Your task to perform on an android device: see sites visited before in the chrome app Image 0: 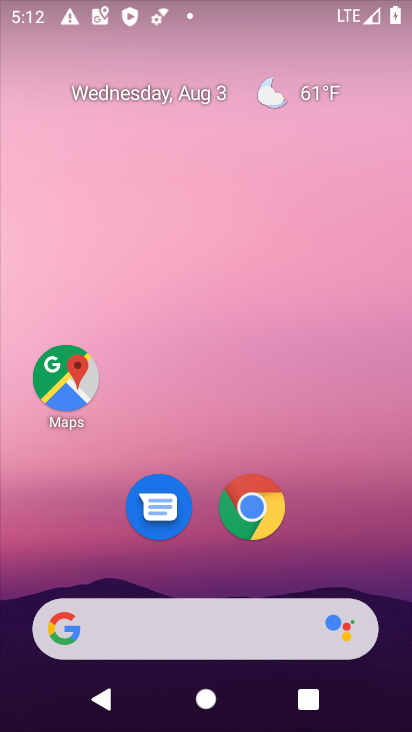
Step 0: click (403, 487)
Your task to perform on an android device: see sites visited before in the chrome app Image 1: 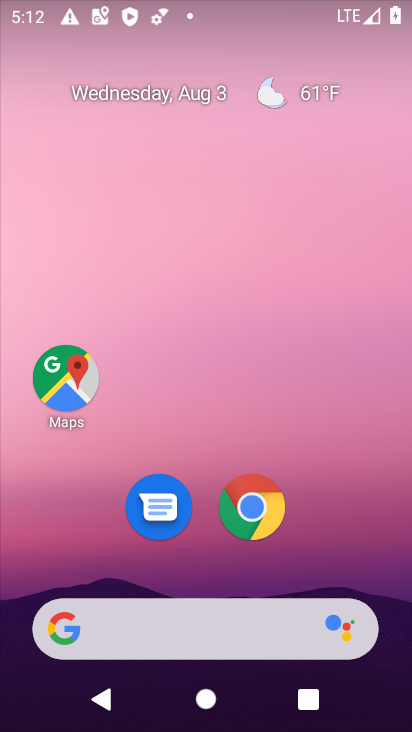
Step 1: drag from (384, 476) to (358, 0)
Your task to perform on an android device: see sites visited before in the chrome app Image 2: 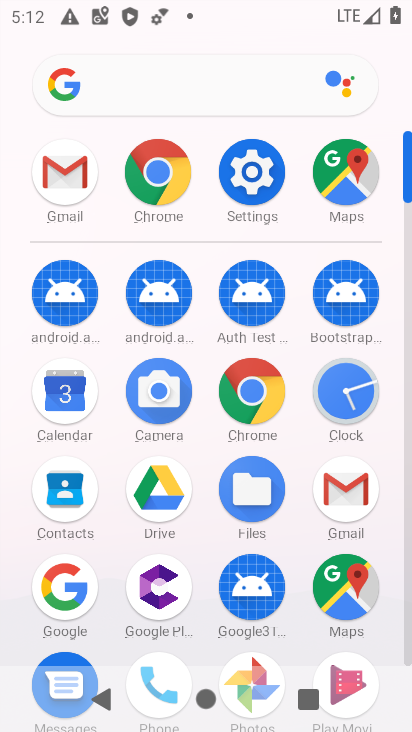
Step 2: click (244, 386)
Your task to perform on an android device: see sites visited before in the chrome app Image 3: 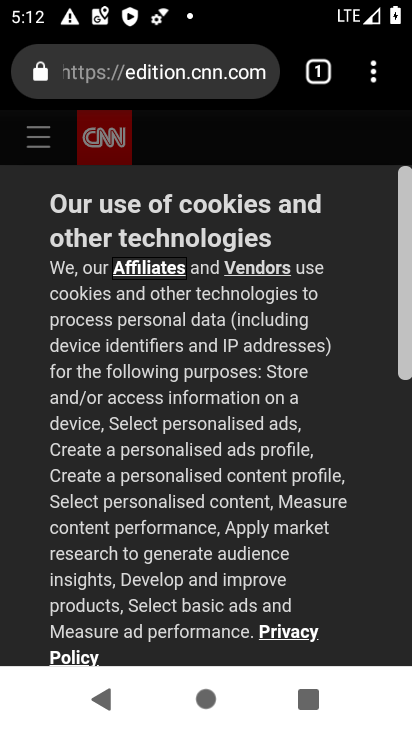
Step 3: task complete